Your task to perform on an android device: empty trash in google photos Image 0: 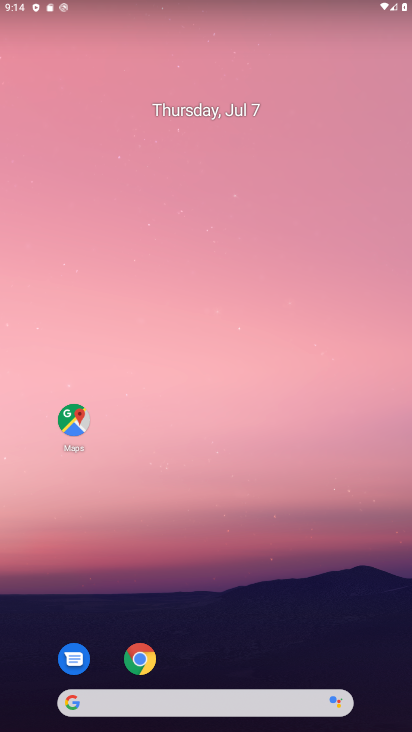
Step 0: drag from (199, 605) to (220, 116)
Your task to perform on an android device: empty trash in google photos Image 1: 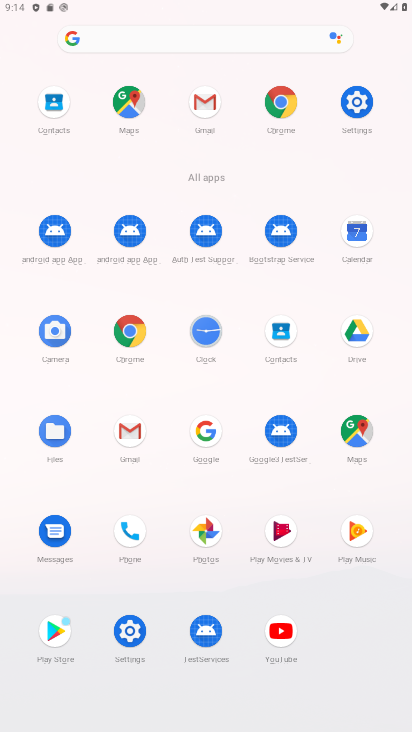
Step 1: click (211, 533)
Your task to perform on an android device: empty trash in google photos Image 2: 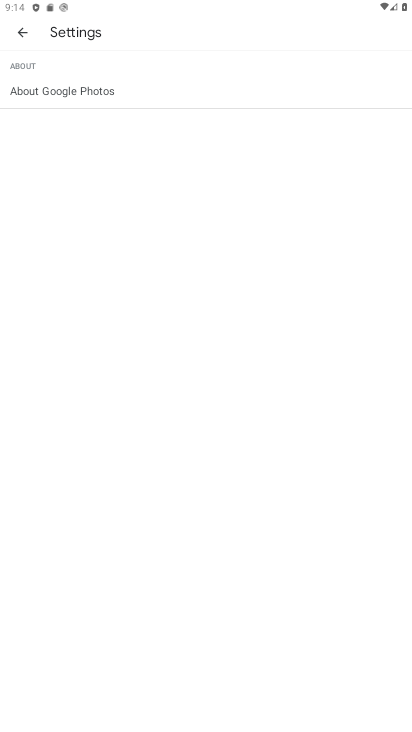
Step 2: click (24, 35)
Your task to perform on an android device: empty trash in google photos Image 3: 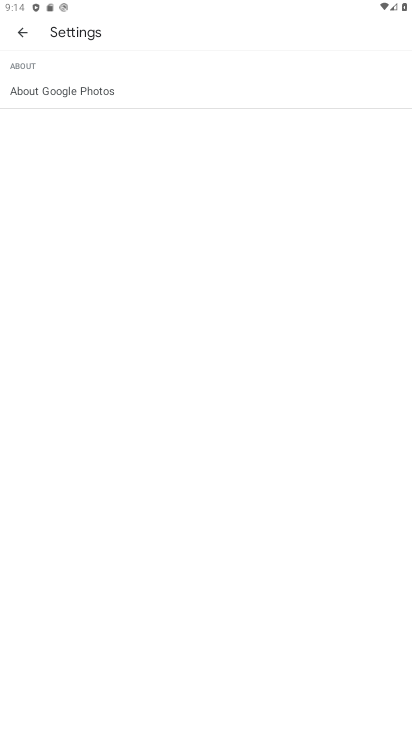
Step 3: click (24, 35)
Your task to perform on an android device: empty trash in google photos Image 4: 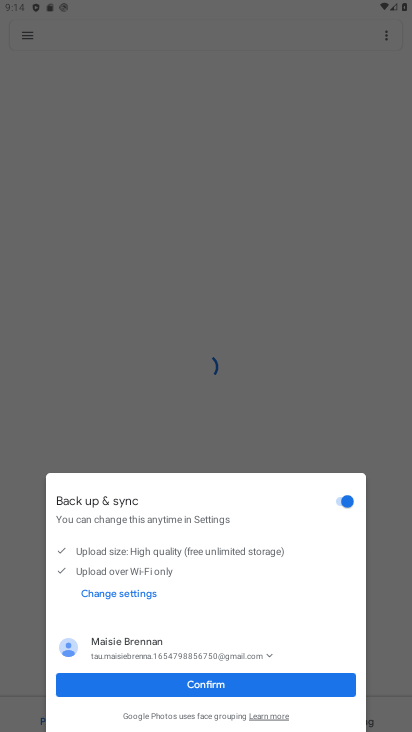
Step 4: click (158, 683)
Your task to perform on an android device: empty trash in google photos Image 5: 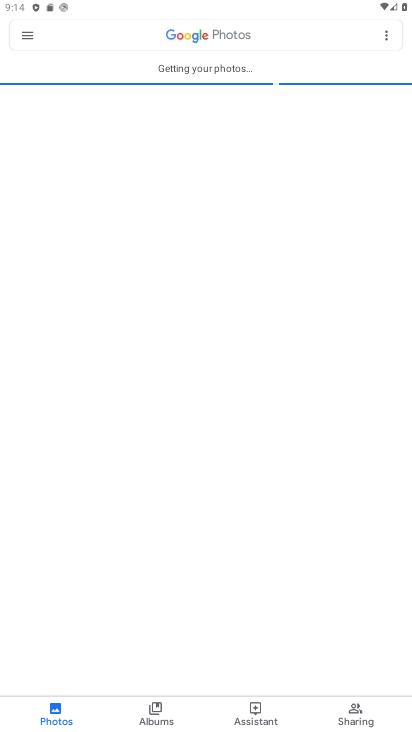
Step 5: click (29, 38)
Your task to perform on an android device: empty trash in google photos Image 6: 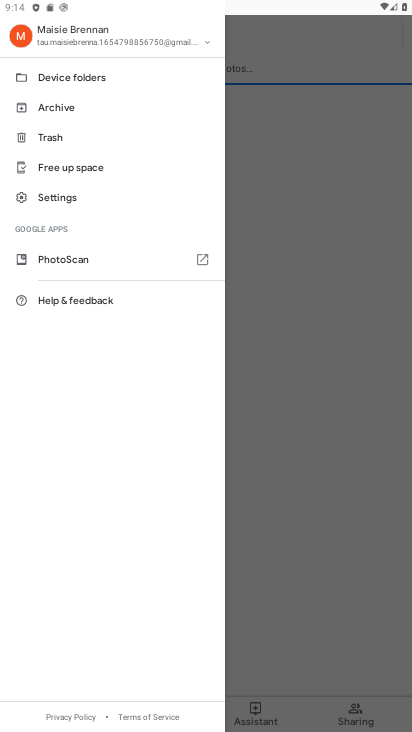
Step 6: click (127, 135)
Your task to perform on an android device: empty trash in google photos Image 7: 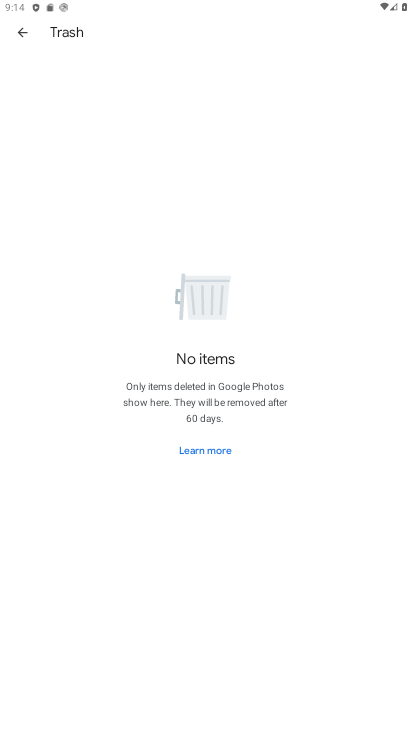
Step 7: task complete